Your task to perform on an android device: Go to battery settings Image 0: 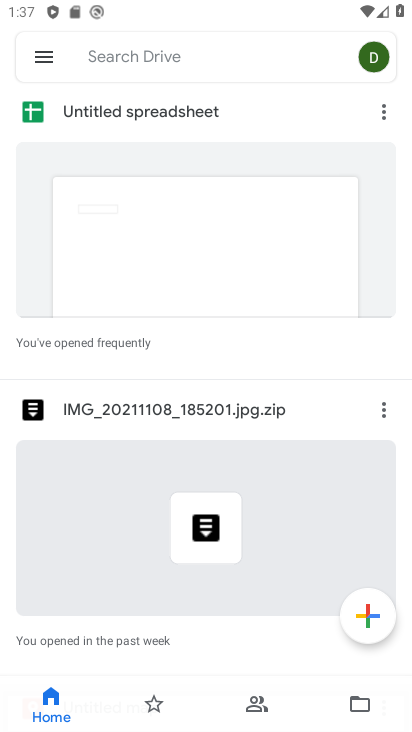
Step 0: press home button
Your task to perform on an android device: Go to battery settings Image 1: 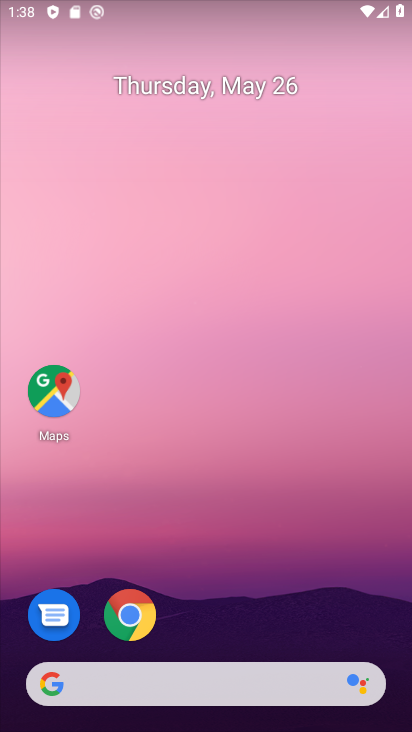
Step 1: drag from (227, 628) to (247, 97)
Your task to perform on an android device: Go to battery settings Image 2: 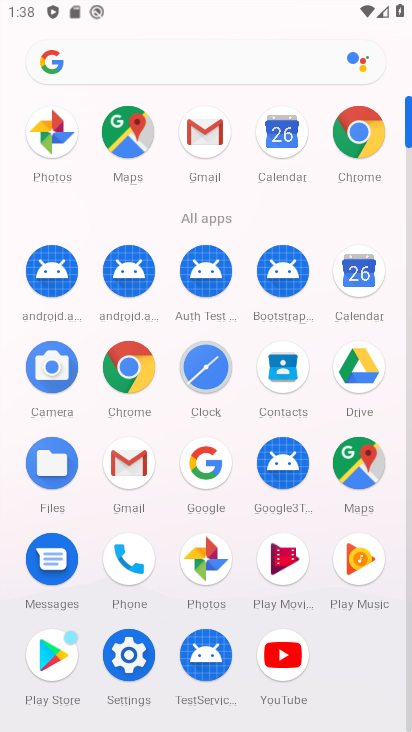
Step 2: click (125, 649)
Your task to perform on an android device: Go to battery settings Image 3: 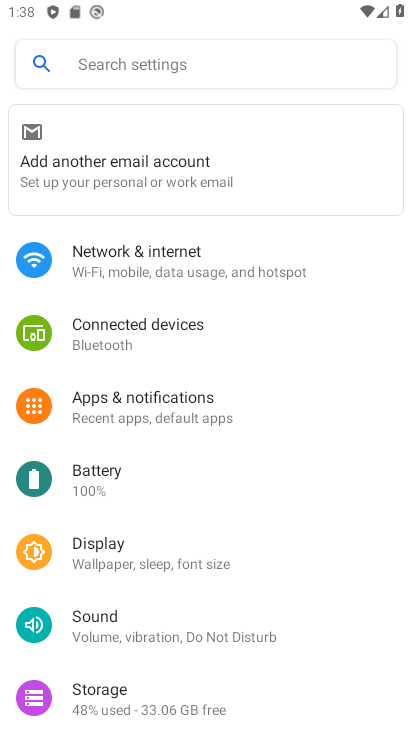
Step 3: click (111, 487)
Your task to perform on an android device: Go to battery settings Image 4: 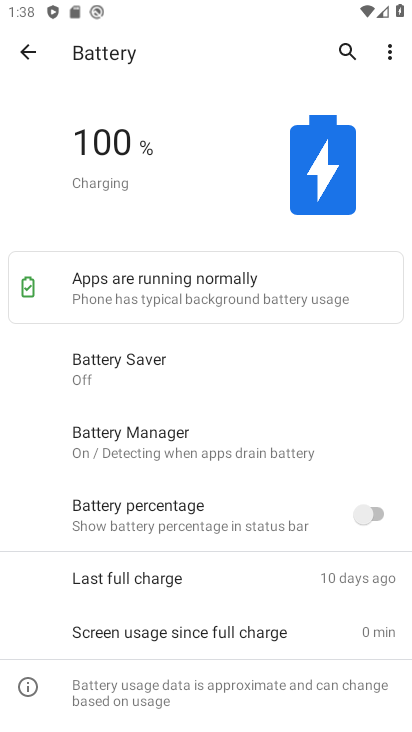
Step 4: task complete